Your task to perform on an android device: turn on data saver in the chrome app Image 0: 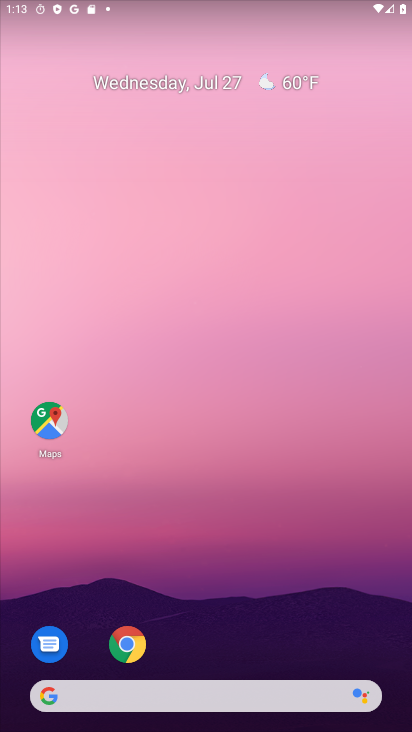
Step 0: click (178, 238)
Your task to perform on an android device: turn on data saver in the chrome app Image 1: 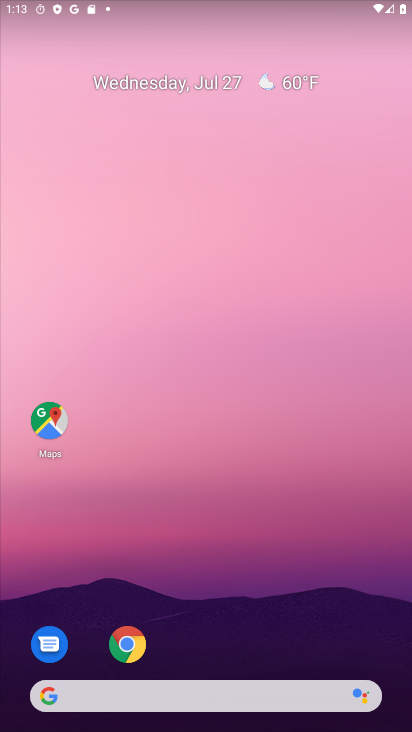
Step 1: drag from (183, 585) to (248, 107)
Your task to perform on an android device: turn on data saver in the chrome app Image 2: 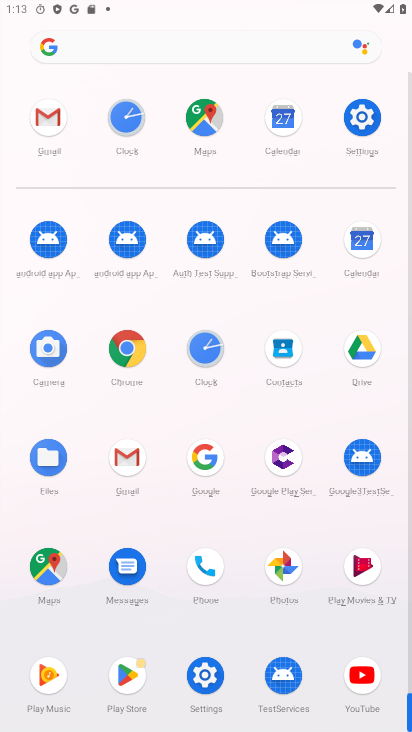
Step 2: click (141, 353)
Your task to perform on an android device: turn on data saver in the chrome app Image 3: 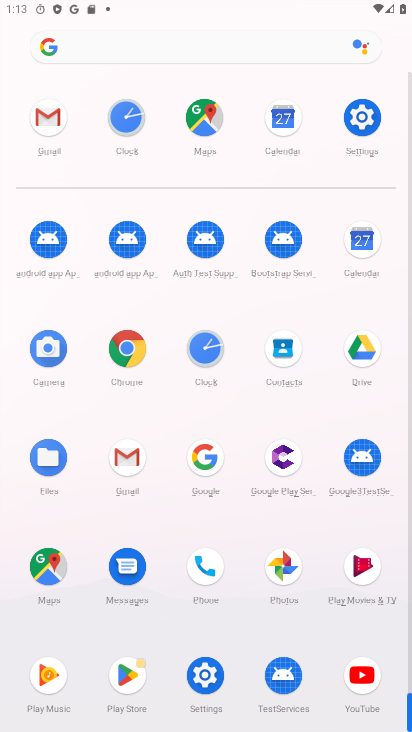
Step 3: click (139, 351)
Your task to perform on an android device: turn on data saver in the chrome app Image 4: 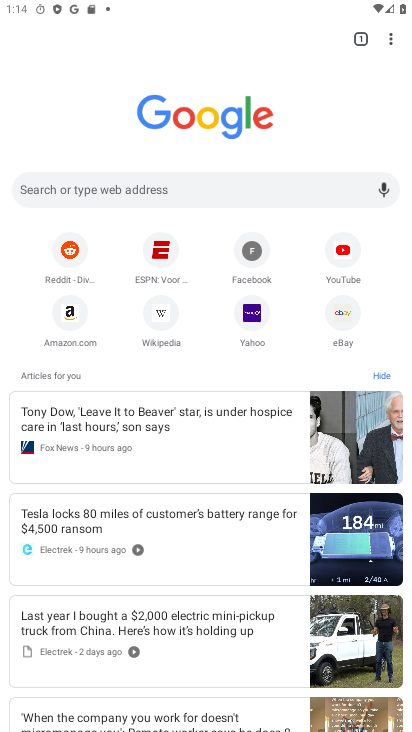
Step 4: drag from (139, 636) to (215, 189)
Your task to perform on an android device: turn on data saver in the chrome app Image 5: 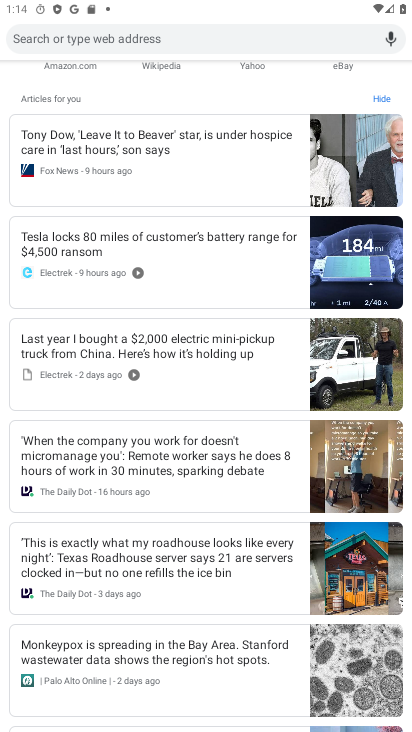
Step 5: drag from (185, 197) to (408, 342)
Your task to perform on an android device: turn on data saver in the chrome app Image 6: 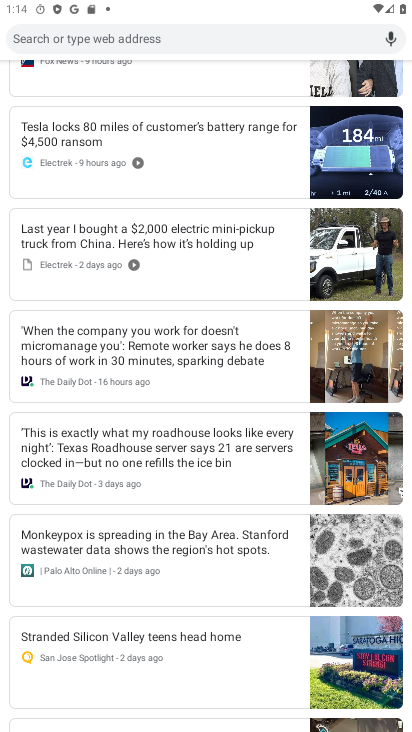
Step 6: drag from (167, 594) to (158, 297)
Your task to perform on an android device: turn on data saver in the chrome app Image 7: 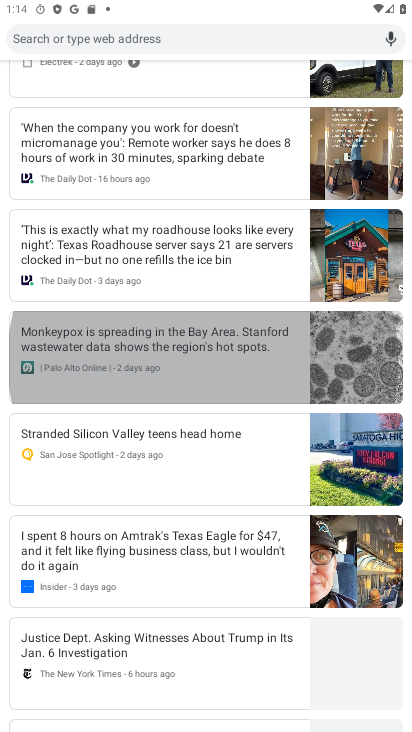
Step 7: drag from (152, 207) to (346, 710)
Your task to perform on an android device: turn on data saver in the chrome app Image 8: 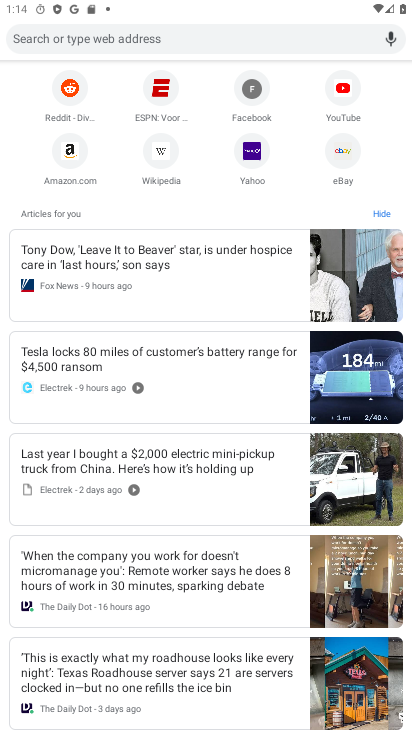
Step 8: drag from (223, 206) to (338, 572)
Your task to perform on an android device: turn on data saver in the chrome app Image 9: 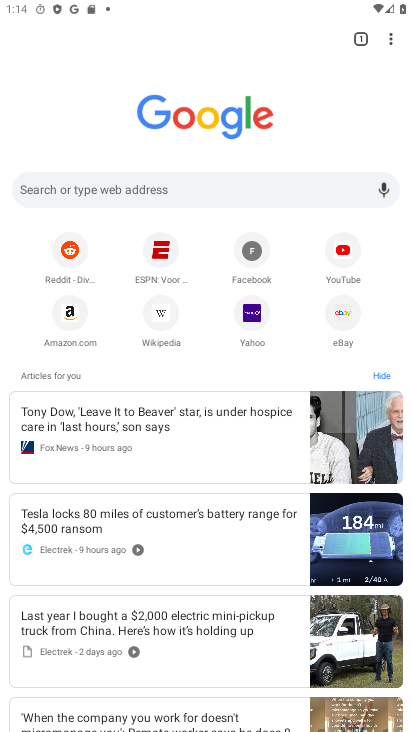
Step 9: drag from (385, 39) to (266, 378)
Your task to perform on an android device: turn on data saver in the chrome app Image 10: 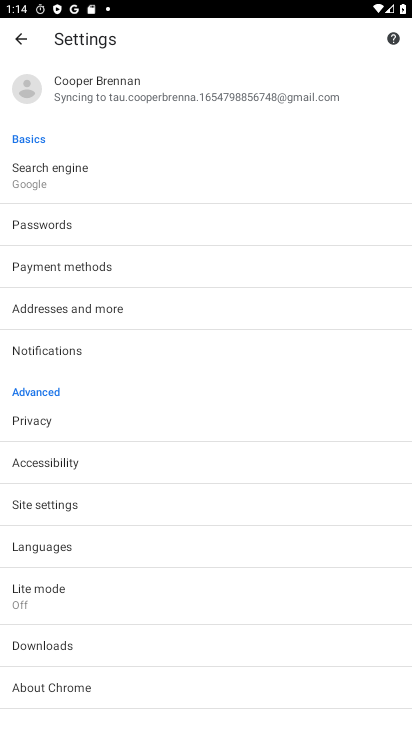
Step 10: click (86, 584)
Your task to perform on an android device: turn on data saver in the chrome app Image 11: 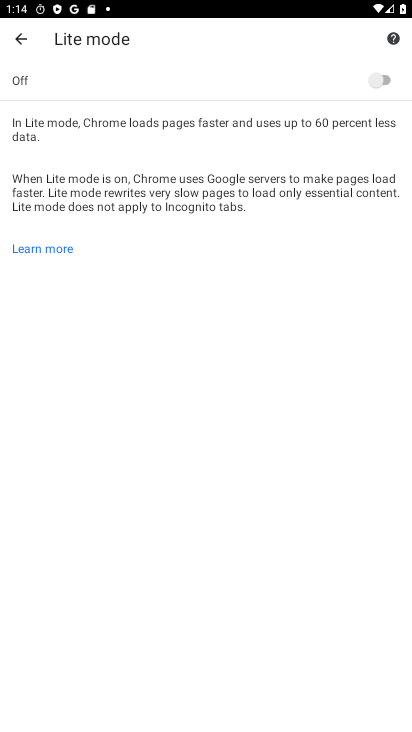
Step 11: click (254, 86)
Your task to perform on an android device: turn on data saver in the chrome app Image 12: 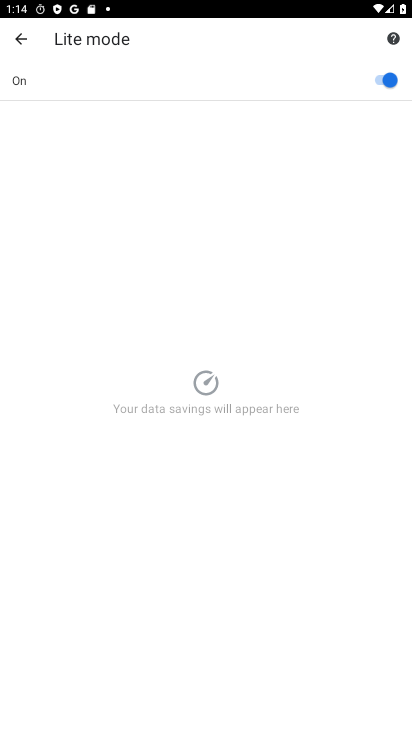
Step 12: task complete